Your task to perform on an android device: see tabs open on other devices in the chrome app Image 0: 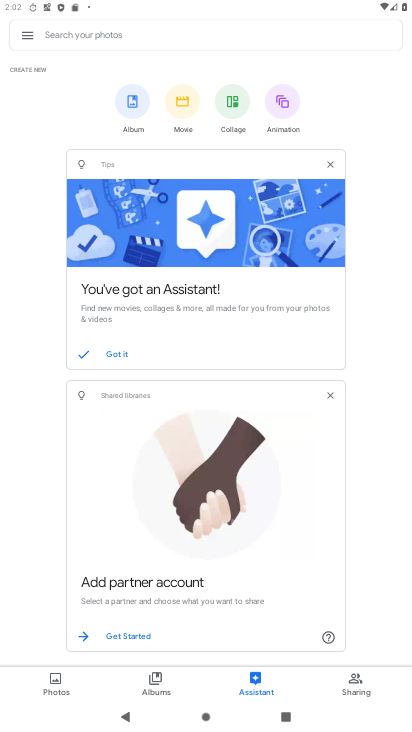
Step 0: press home button
Your task to perform on an android device: see tabs open on other devices in the chrome app Image 1: 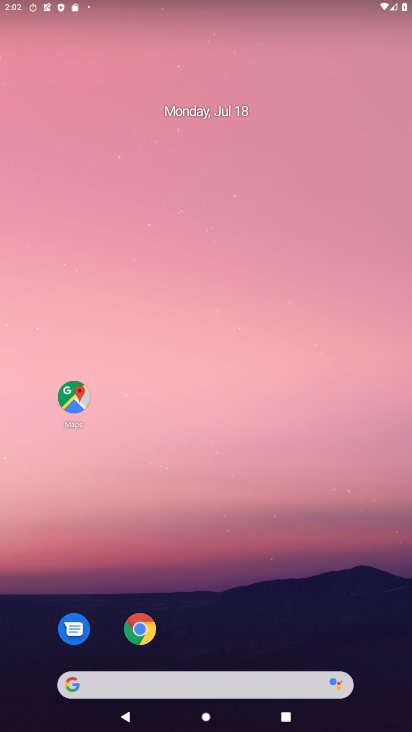
Step 1: click (136, 624)
Your task to perform on an android device: see tabs open on other devices in the chrome app Image 2: 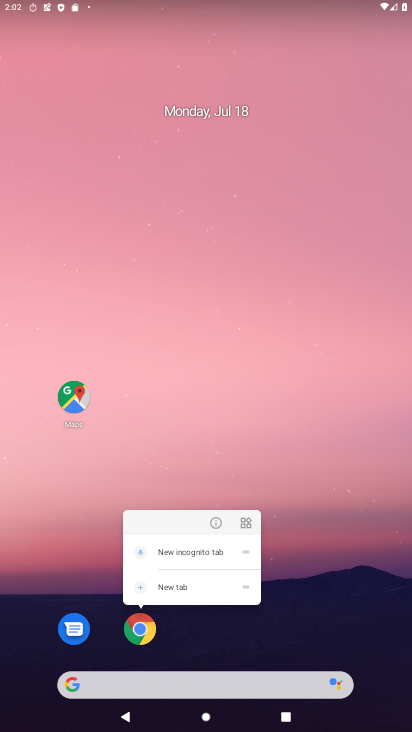
Step 2: click (148, 629)
Your task to perform on an android device: see tabs open on other devices in the chrome app Image 3: 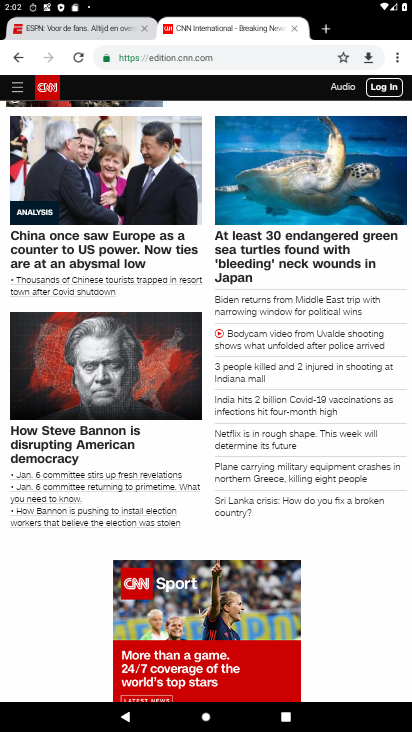
Step 3: click (401, 55)
Your task to perform on an android device: see tabs open on other devices in the chrome app Image 4: 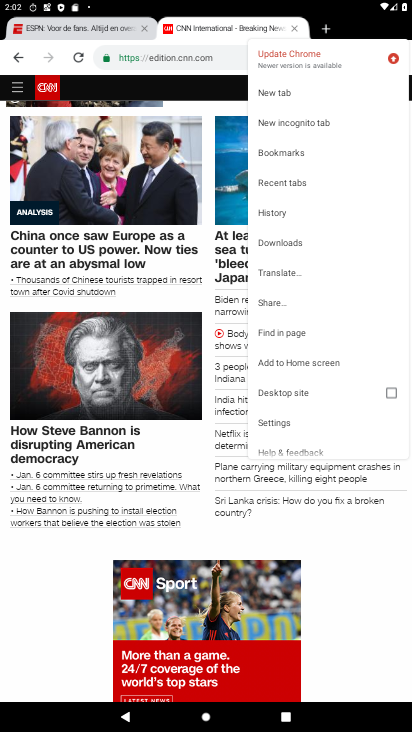
Step 4: click (309, 181)
Your task to perform on an android device: see tabs open on other devices in the chrome app Image 5: 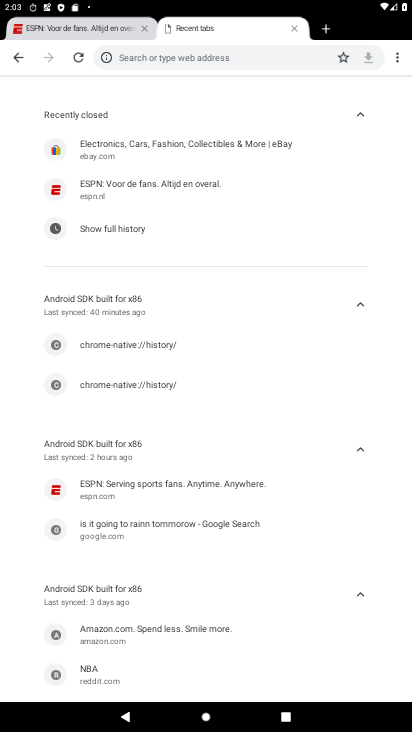
Step 5: click (299, 27)
Your task to perform on an android device: see tabs open on other devices in the chrome app Image 6: 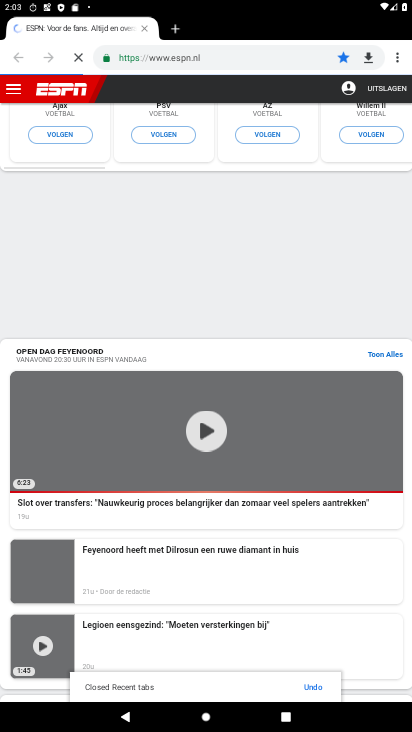
Step 6: click (181, 28)
Your task to perform on an android device: see tabs open on other devices in the chrome app Image 7: 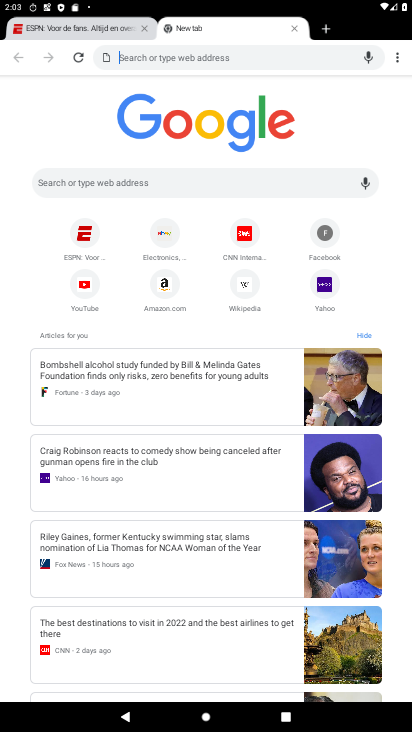
Step 7: click (397, 59)
Your task to perform on an android device: see tabs open on other devices in the chrome app Image 8: 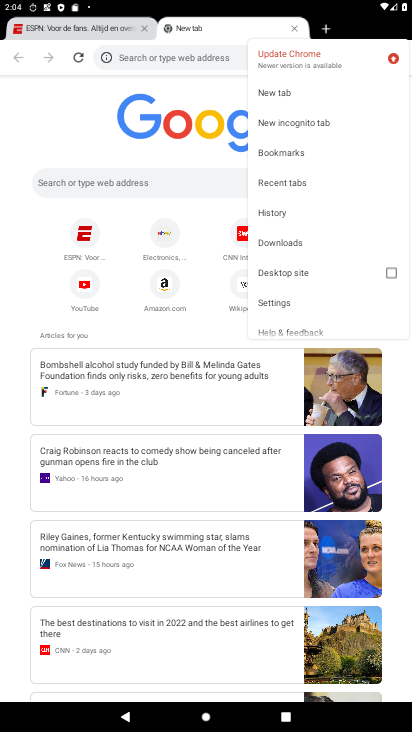
Step 8: click (306, 179)
Your task to perform on an android device: see tabs open on other devices in the chrome app Image 9: 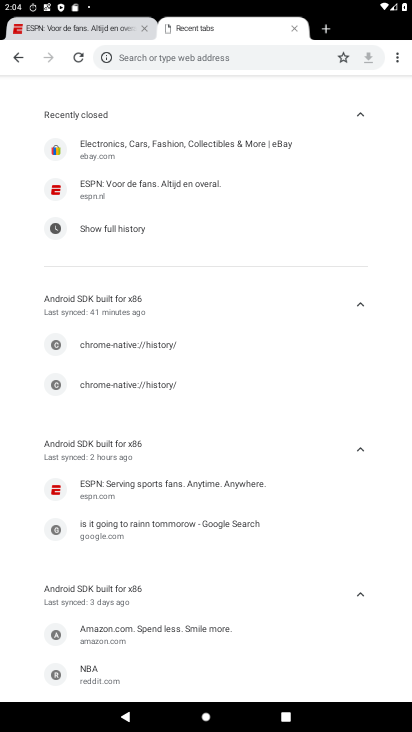
Step 9: task complete